Your task to perform on an android device: Turn off the flashlight Image 0: 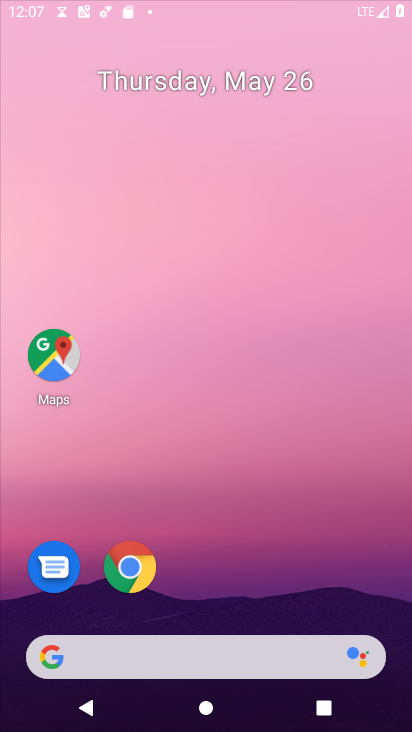
Step 0: click (129, 556)
Your task to perform on an android device: Turn off the flashlight Image 1: 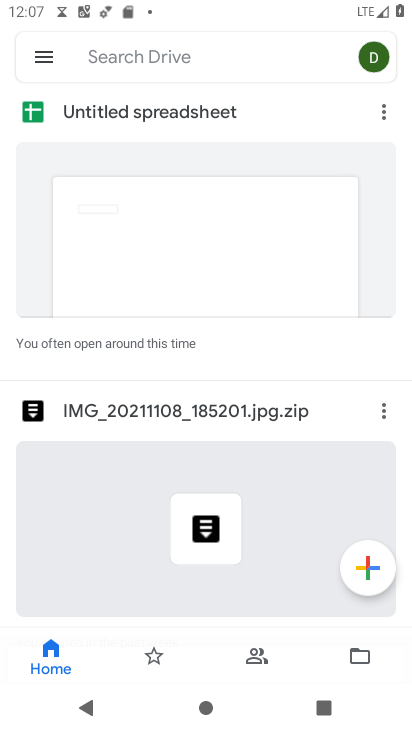
Step 1: press home button
Your task to perform on an android device: Turn off the flashlight Image 2: 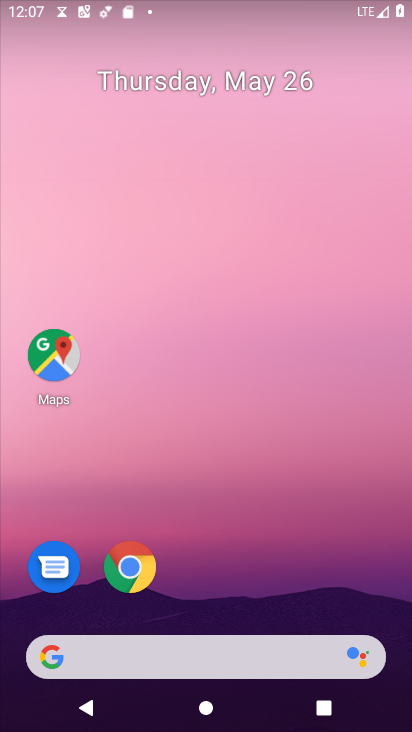
Step 2: drag from (316, 580) to (260, 265)
Your task to perform on an android device: Turn off the flashlight Image 3: 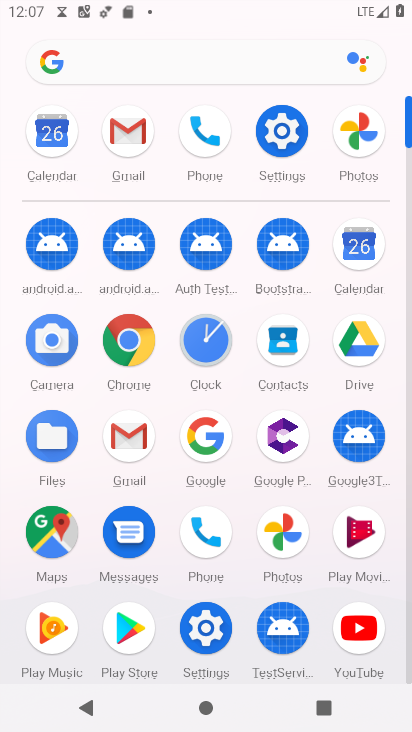
Step 3: click (266, 134)
Your task to perform on an android device: Turn off the flashlight Image 4: 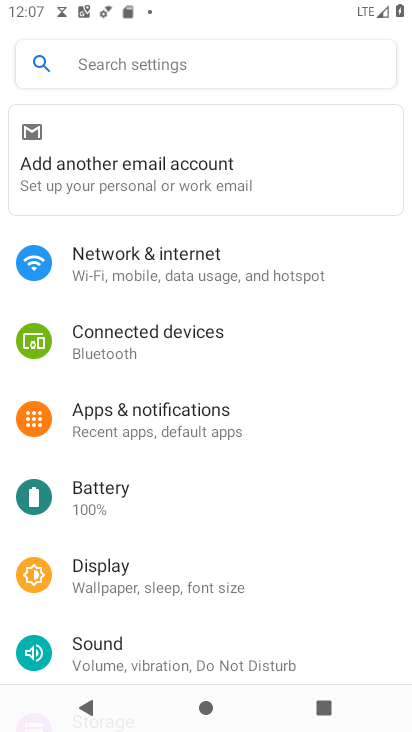
Step 4: click (178, 567)
Your task to perform on an android device: Turn off the flashlight Image 5: 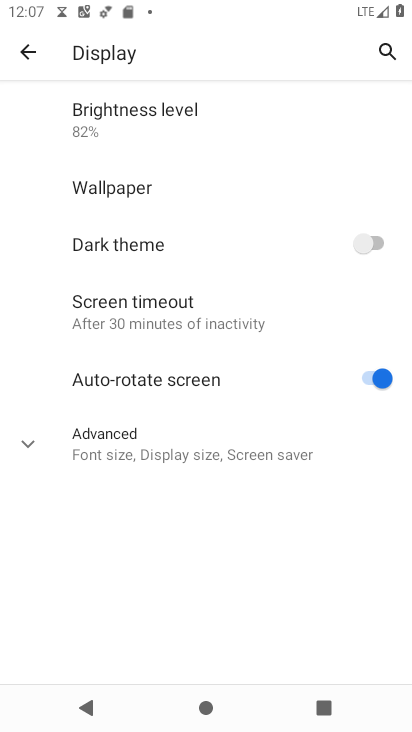
Step 5: click (121, 434)
Your task to perform on an android device: Turn off the flashlight Image 6: 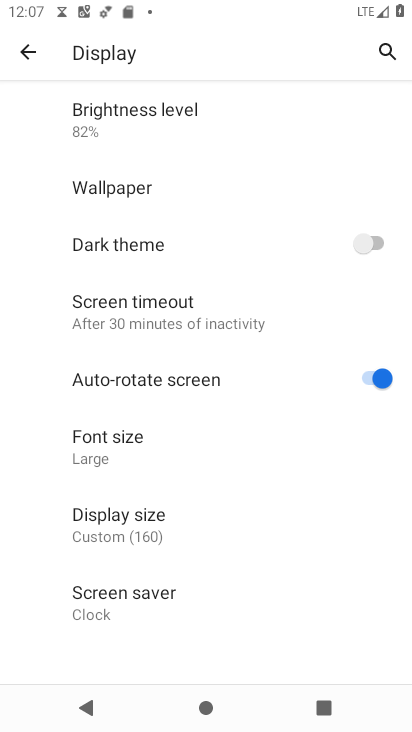
Step 6: task complete